Your task to perform on an android device: Go to Google Image 0: 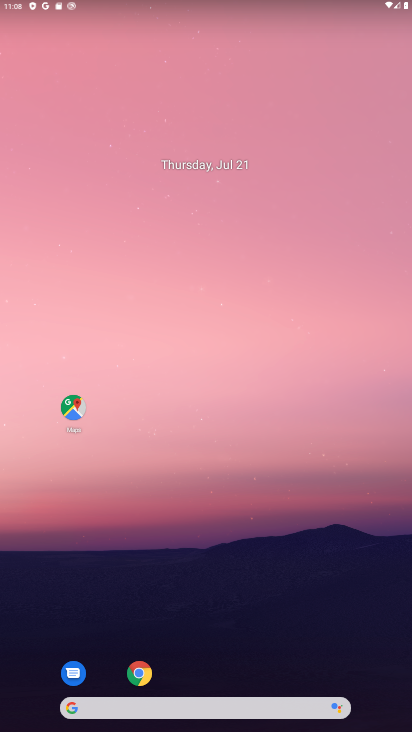
Step 0: drag from (231, 655) to (264, 129)
Your task to perform on an android device: Go to Google Image 1: 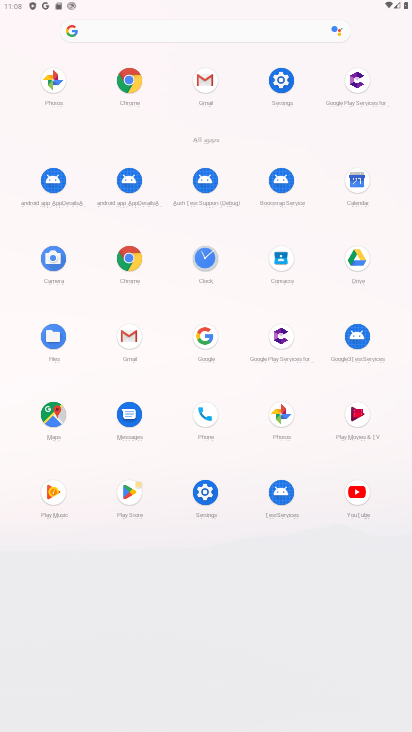
Step 1: click (203, 327)
Your task to perform on an android device: Go to Google Image 2: 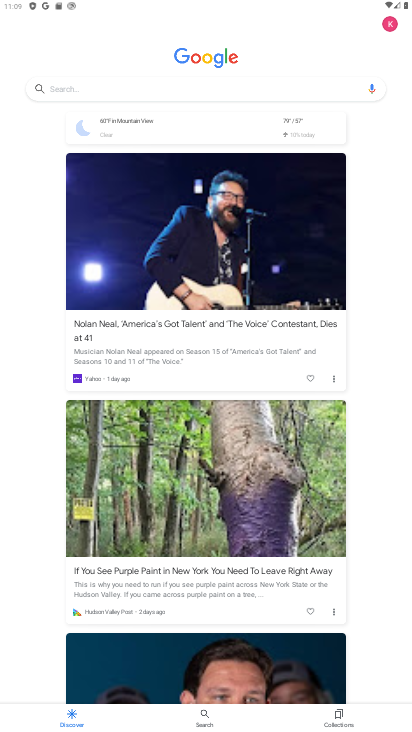
Step 2: task complete